Your task to perform on an android device: Open wifi settings Image 0: 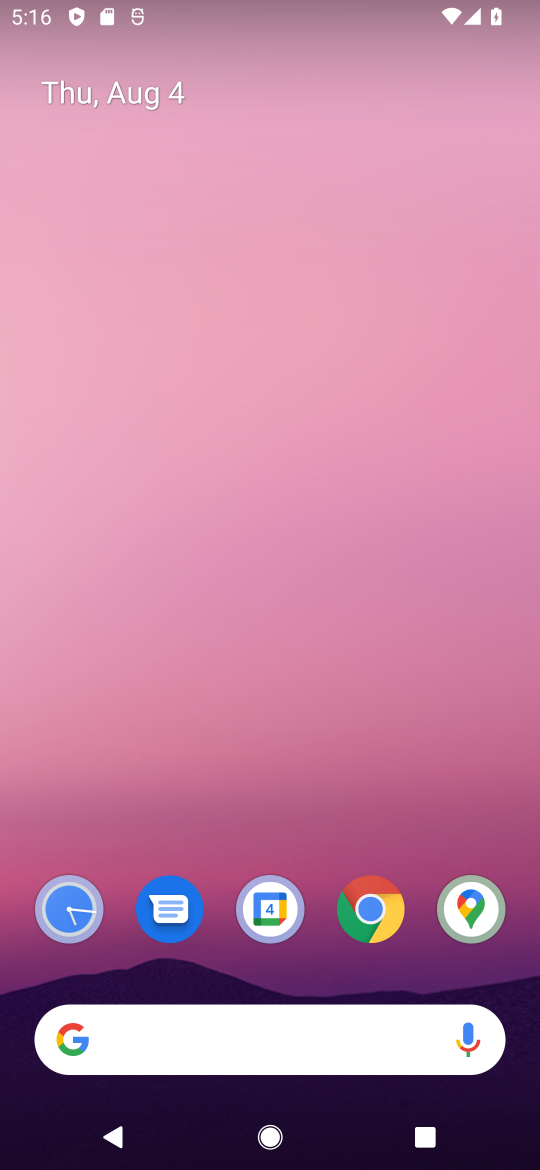
Step 0: drag from (181, 1047) to (421, 225)
Your task to perform on an android device: Open wifi settings Image 1: 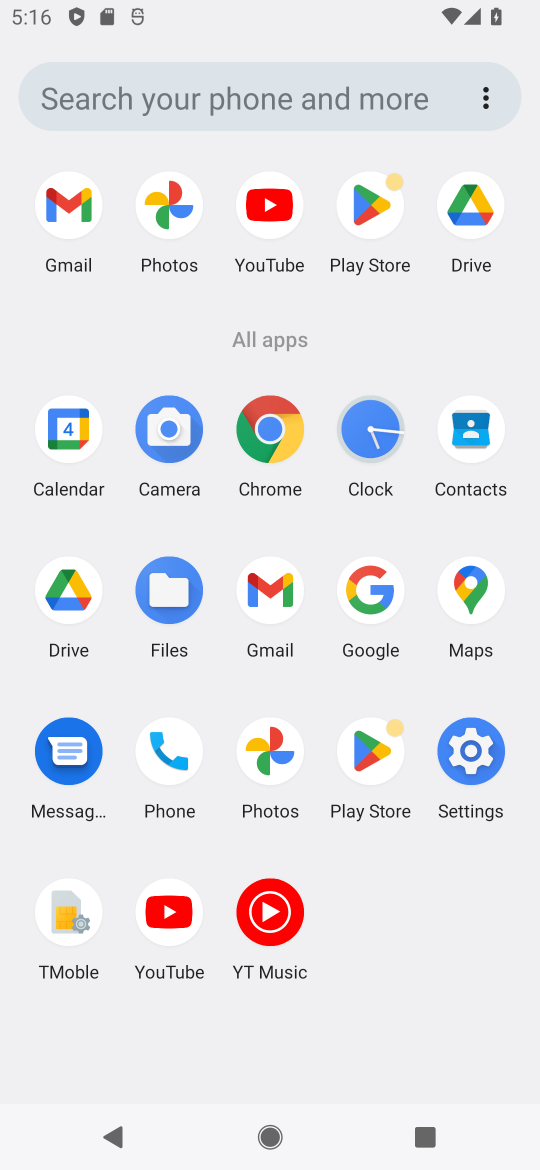
Step 1: click (468, 752)
Your task to perform on an android device: Open wifi settings Image 2: 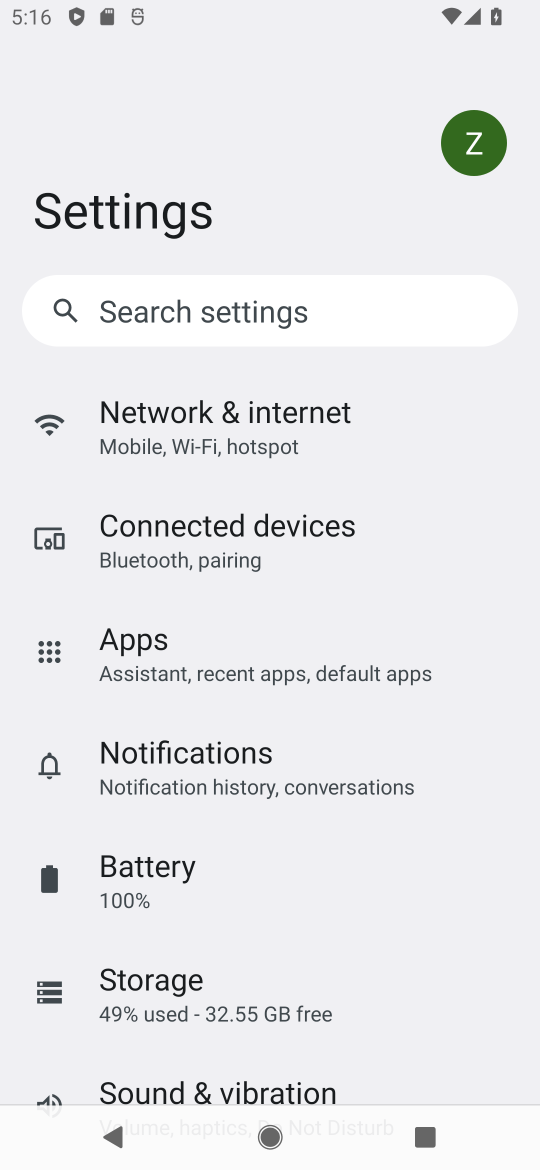
Step 2: click (237, 447)
Your task to perform on an android device: Open wifi settings Image 3: 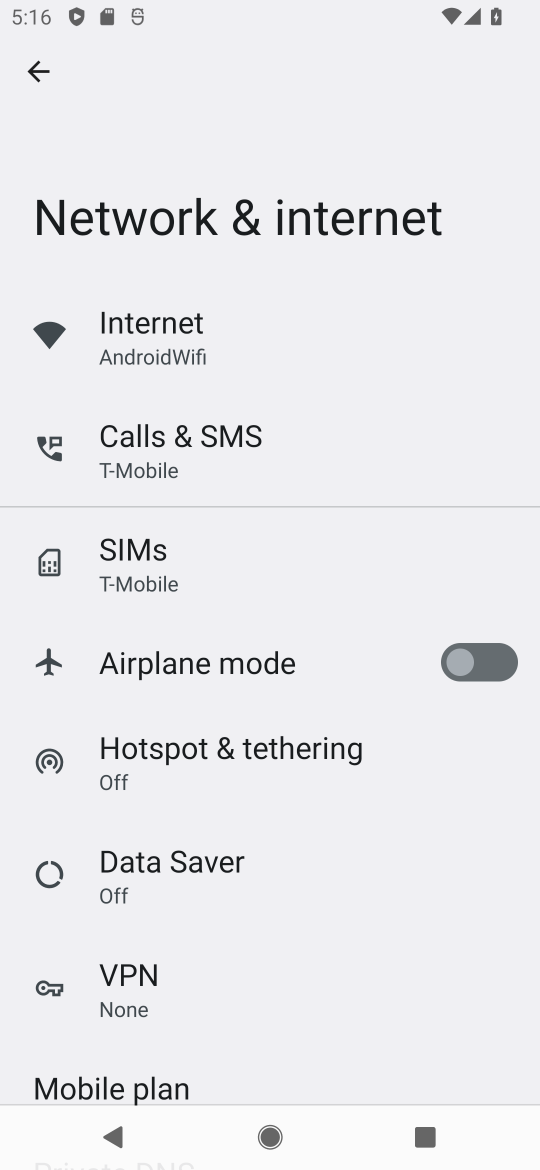
Step 3: click (162, 355)
Your task to perform on an android device: Open wifi settings Image 4: 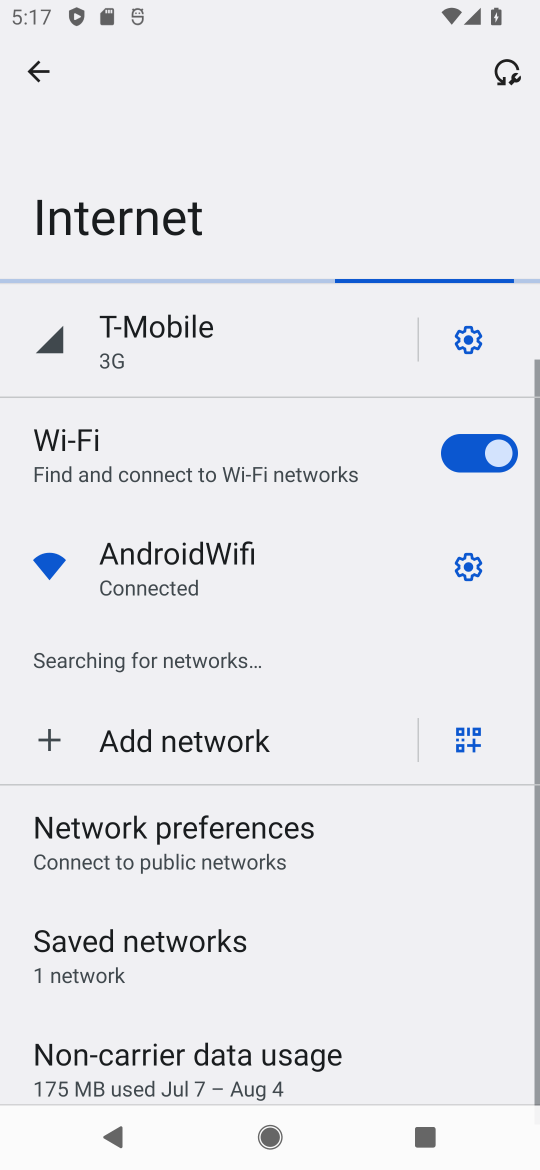
Step 4: click (469, 564)
Your task to perform on an android device: Open wifi settings Image 5: 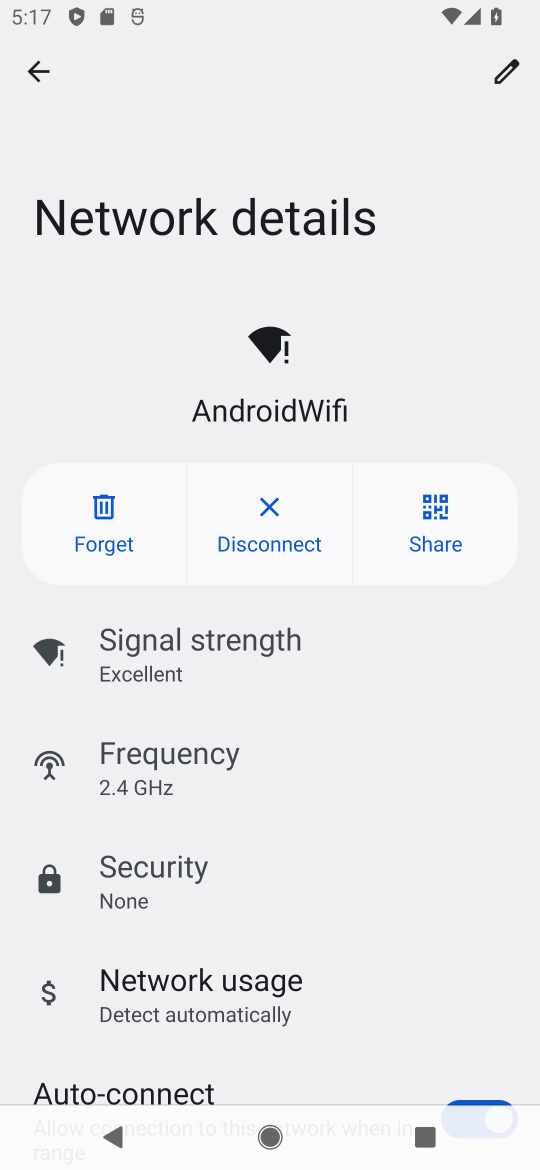
Step 5: task complete